Your task to perform on an android device: Open the web browser Image 0: 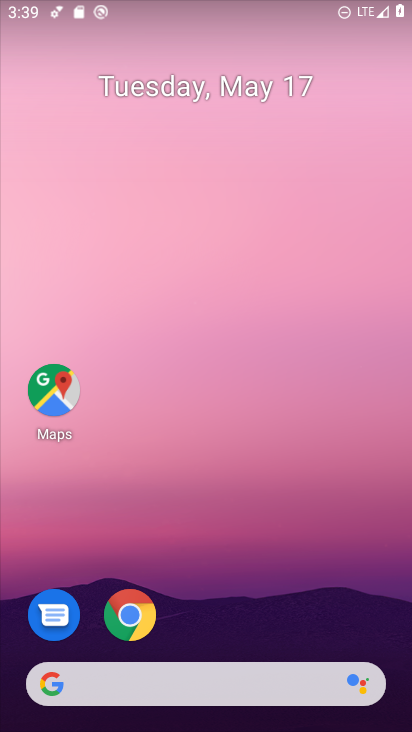
Step 0: click (135, 613)
Your task to perform on an android device: Open the web browser Image 1: 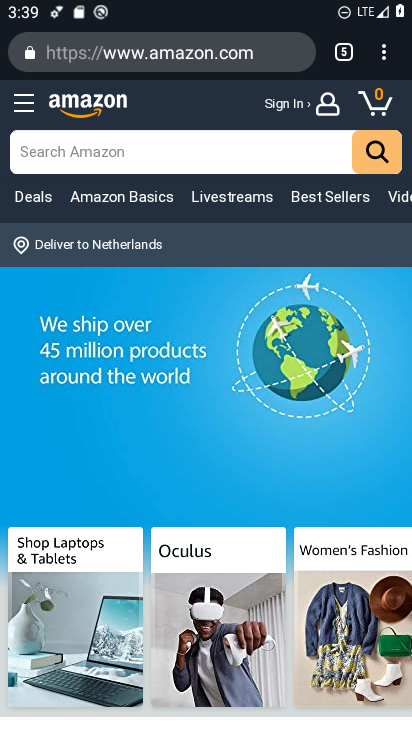
Step 1: task complete